Your task to perform on an android device: change notification settings in the gmail app Image 0: 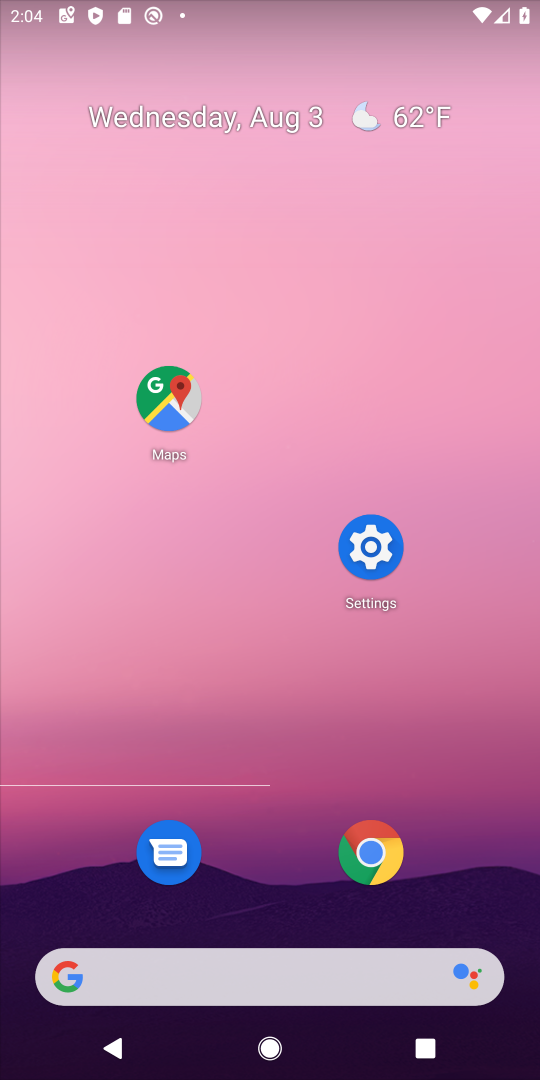
Step 0: press home button
Your task to perform on an android device: change notification settings in the gmail app Image 1: 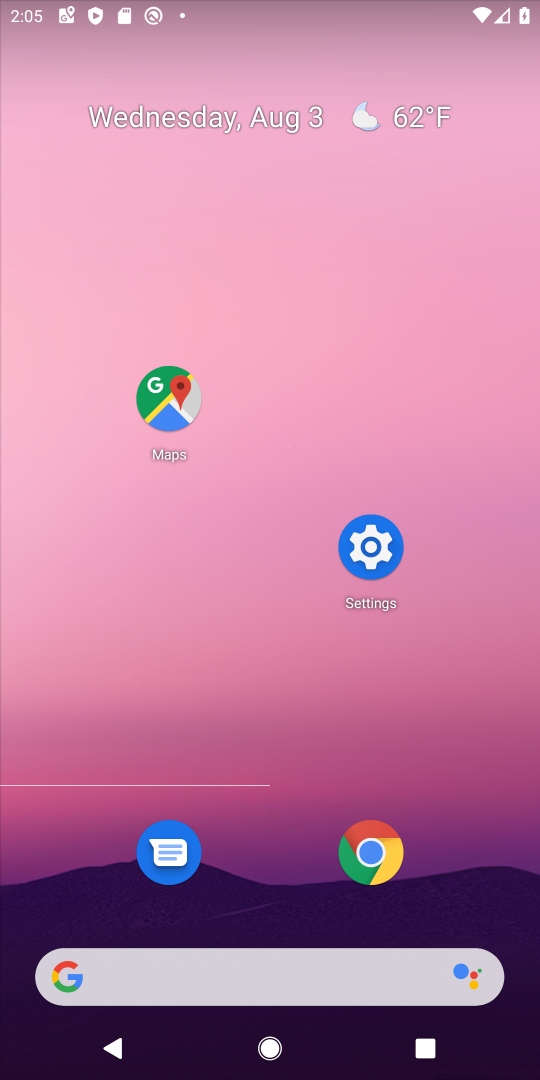
Step 1: drag from (234, 972) to (439, 25)
Your task to perform on an android device: change notification settings in the gmail app Image 2: 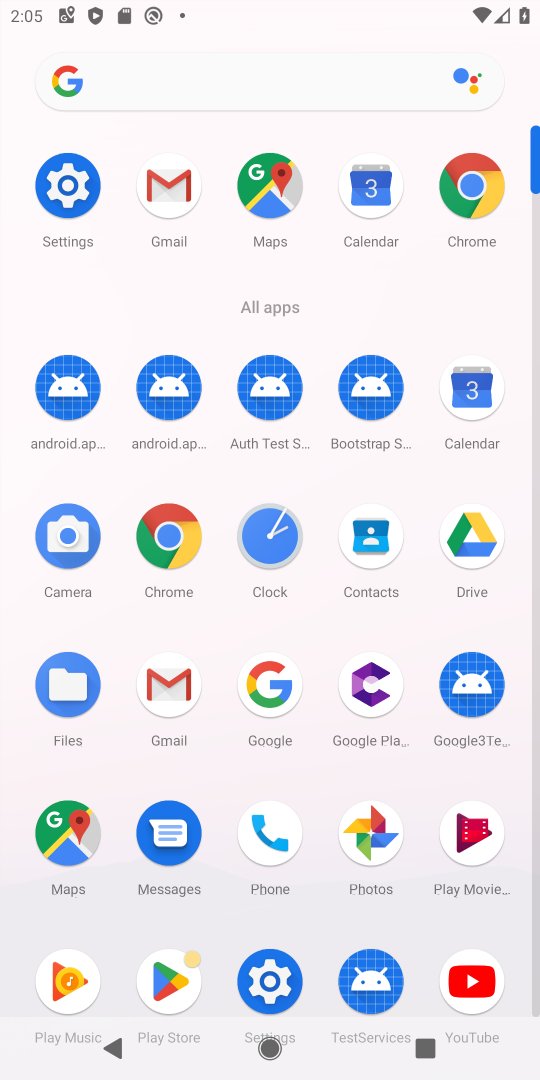
Step 2: click (164, 193)
Your task to perform on an android device: change notification settings in the gmail app Image 3: 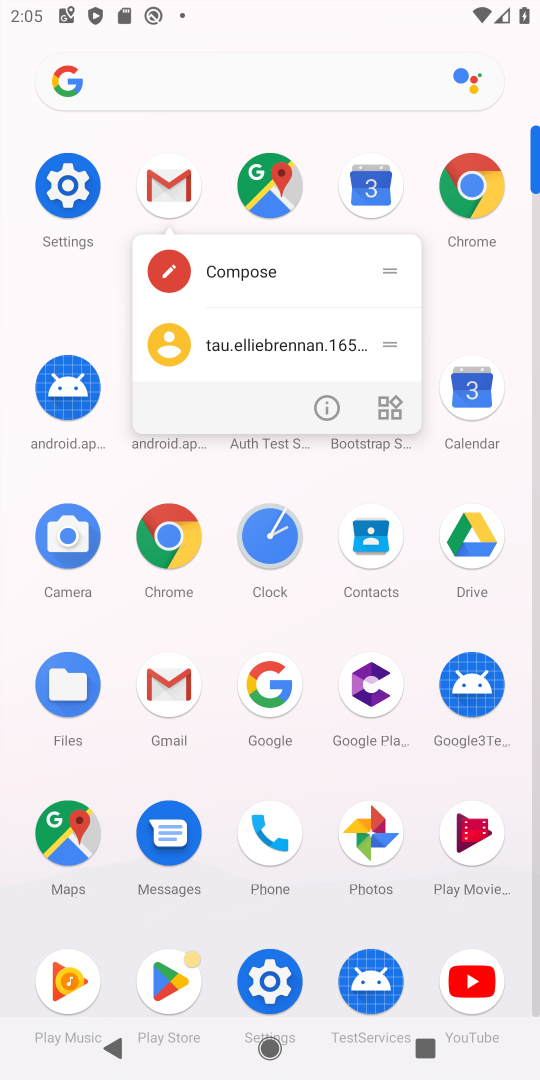
Step 3: click (164, 192)
Your task to perform on an android device: change notification settings in the gmail app Image 4: 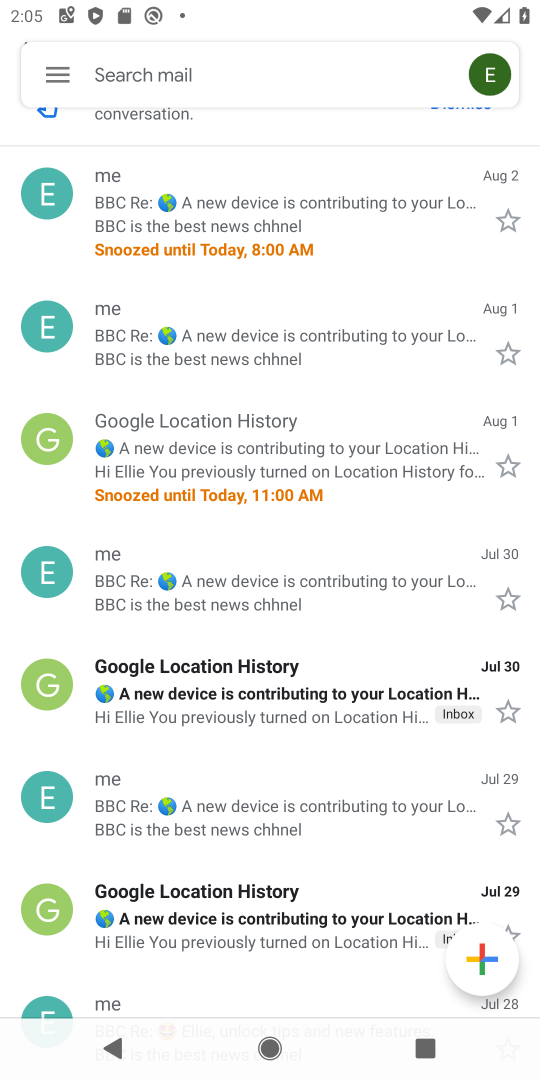
Step 4: click (56, 69)
Your task to perform on an android device: change notification settings in the gmail app Image 5: 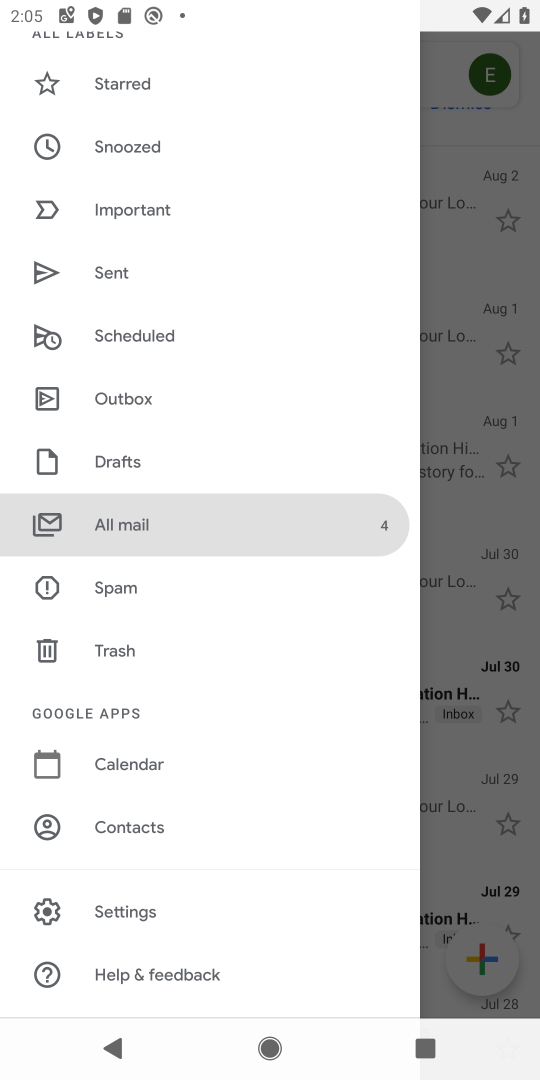
Step 5: click (125, 911)
Your task to perform on an android device: change notification settings in the gmail app Image 6: 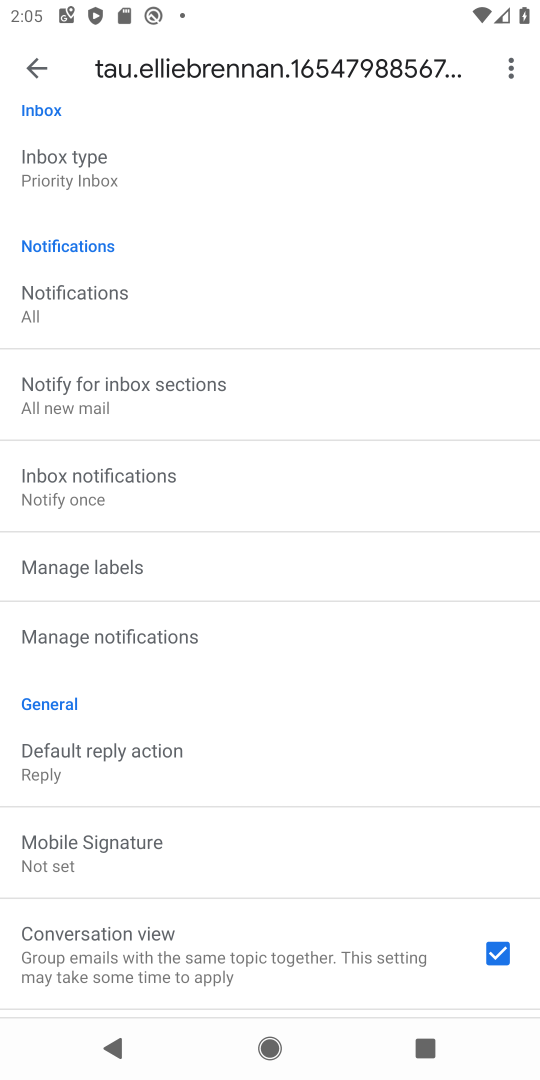
Step 6: click (104, 293)
Your task to perform on an android device: change notification settings in the gmail app Image 7: 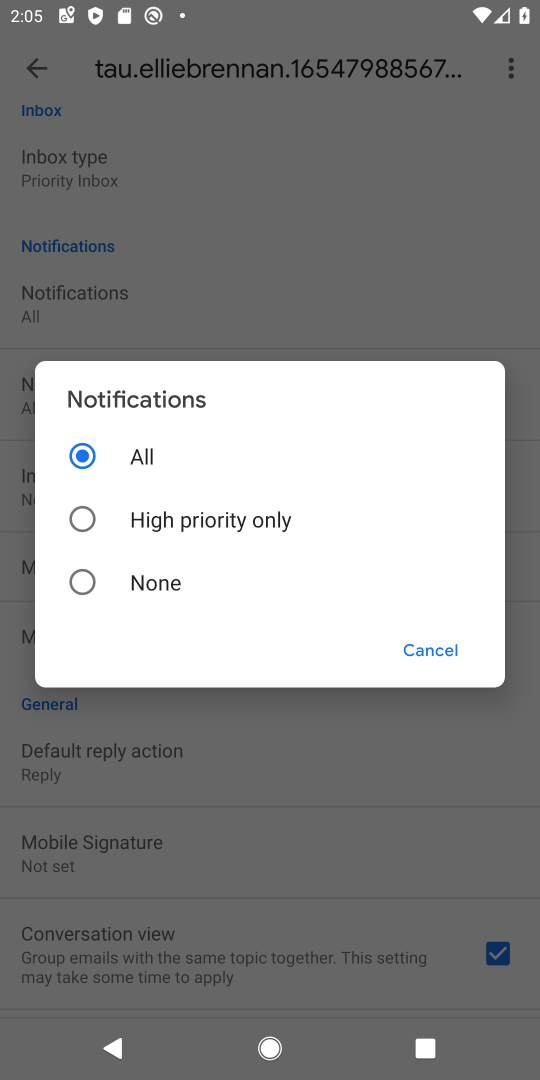
Step 7: click (88, 583)
Your task to perform on an android device: change notification settings in the gmail app Image 8: 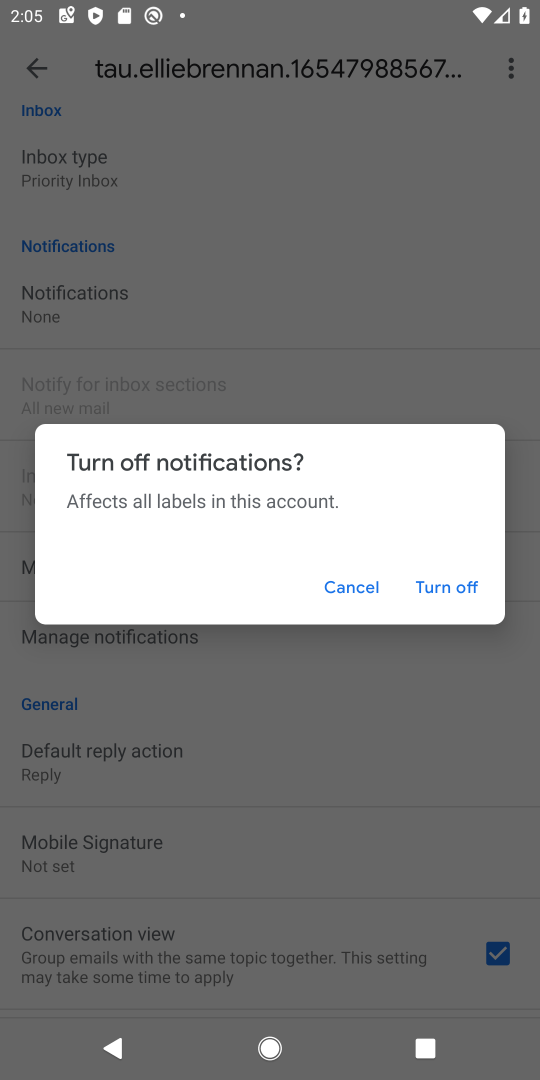
Step 8: click (451, 587)
Your task to perform on an android device: change notification settings in the gmail app Image 9: 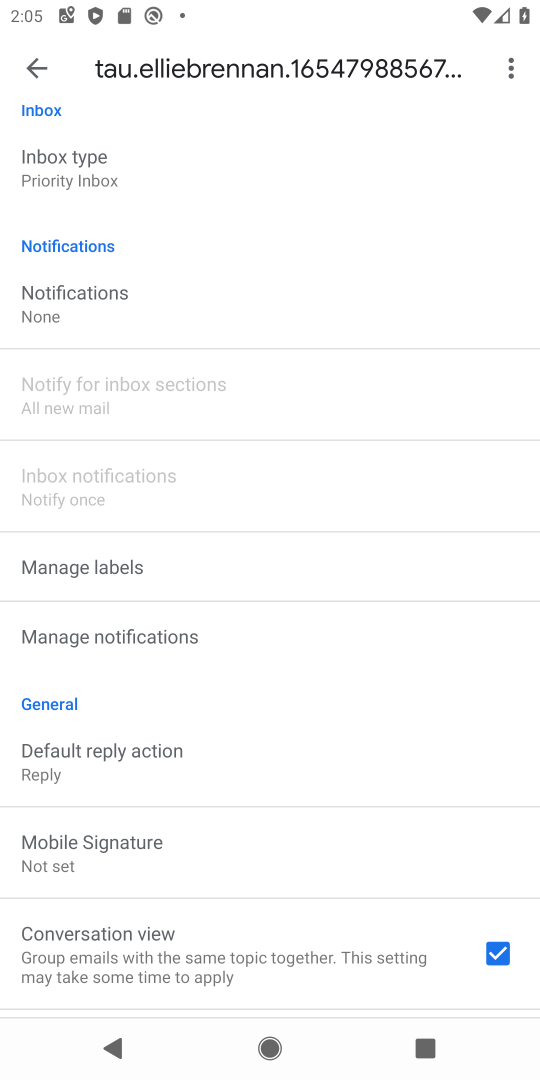
Step 9: task complete